Your task to perform on an android device: turn on priority inbox in the gmail app Image 0: 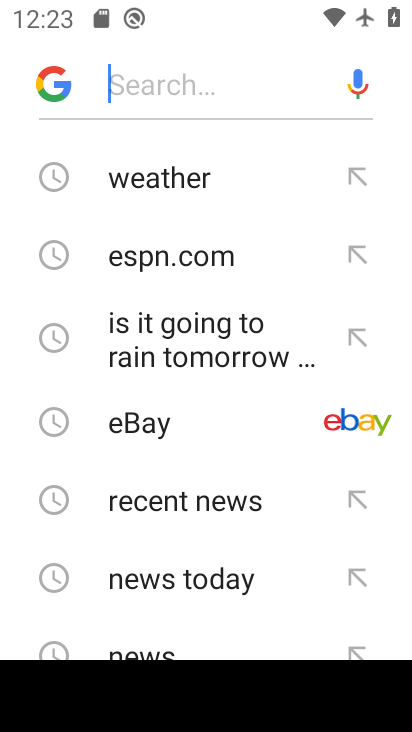
Step 0: press home button
Your task to perform on an android device: turn on priority inbox in the gmail app Image 1: 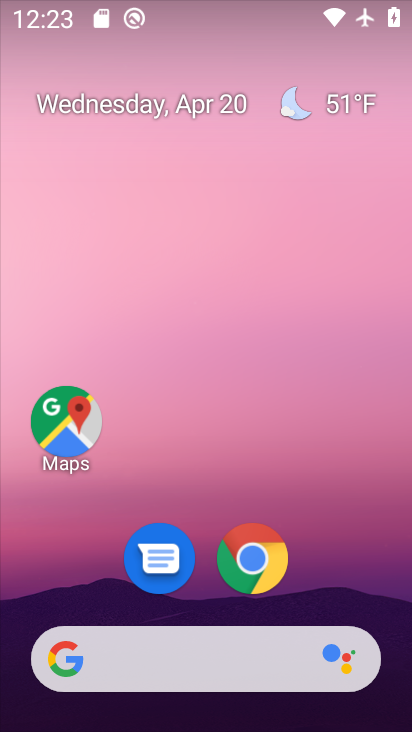
Step 1: drag from (381, 620) to (341, 178)
Your task to perform on an android device: turn on priority inbox in the gmail app Image 2: 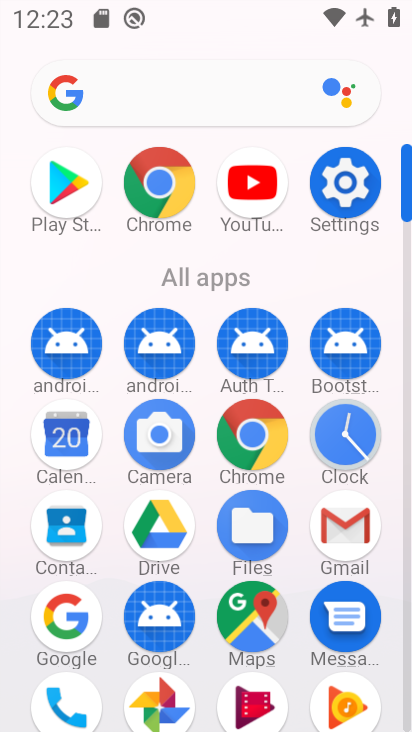
Step 2: click (407, 692)
Your task to perform on an android device: turn on priority inbox in the gmail app Image 3: 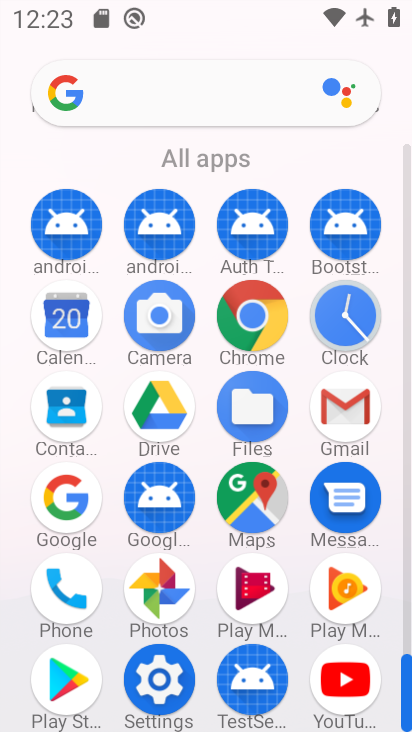
Step 3: click (342, 407)
Your task to perform on an android device: turn on priority inbox in the gmail app Image 4: 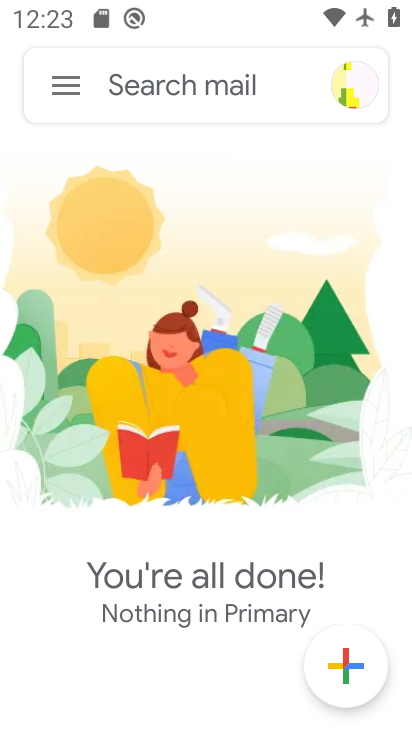
Step 4: click (64, 84)
Your task to perform on an android device: turn on priority inbox in the gmail app Image 5: 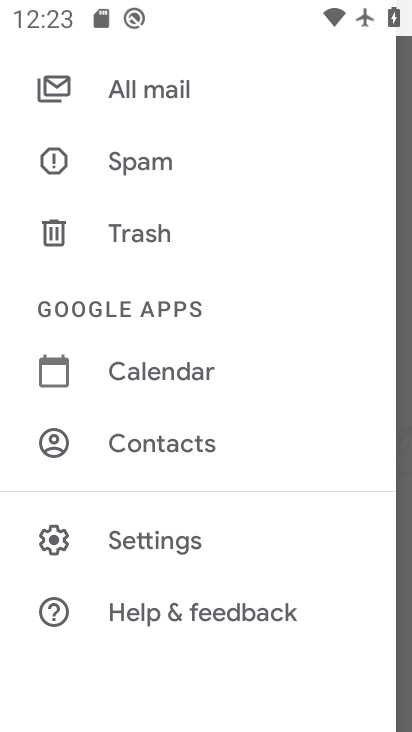
Step 5: click (144, 537)
Your task to perform on an android device: turn on priority inbox in the gmail app Image 6: 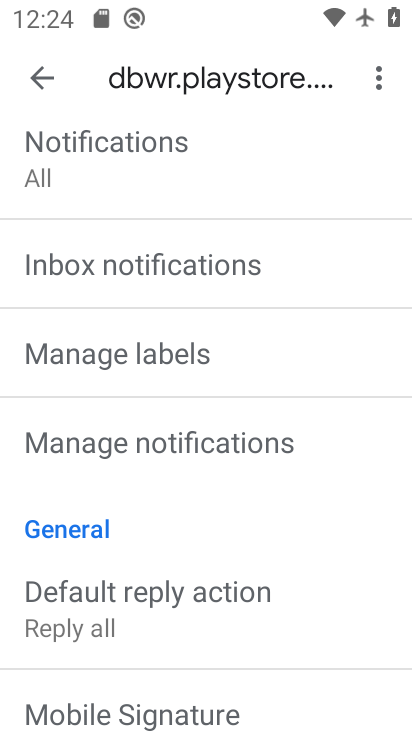
Step 6: drag from (220, 184) to (258, 460)
Your task to perform on an android device: turn on priority inbox in the gmail app Image 7: 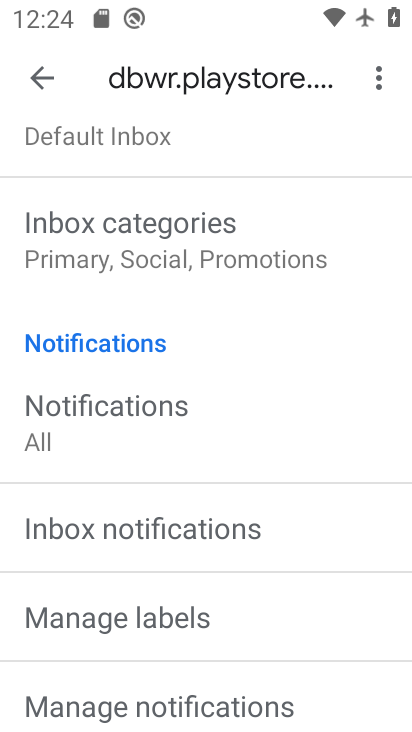
Step 7: drag from (274, 280) to (237, 487)
Your task to perform on an android device: turn on priority inbox in the gmail app Image 8: 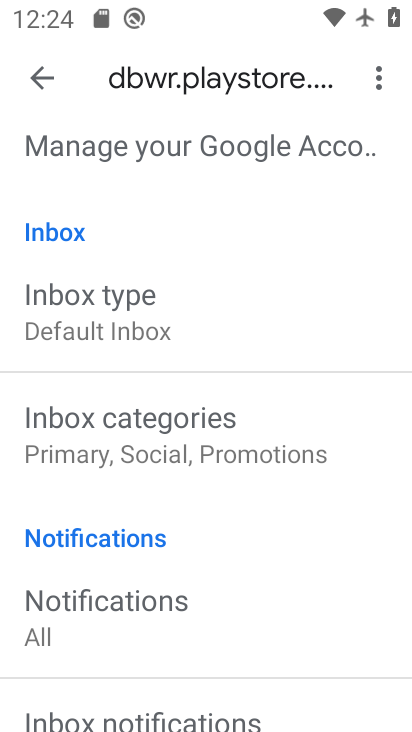
Step 8: click (58, 313)
Your task to perform on an android device: turn on priority inbox in the gmail app Image 9: 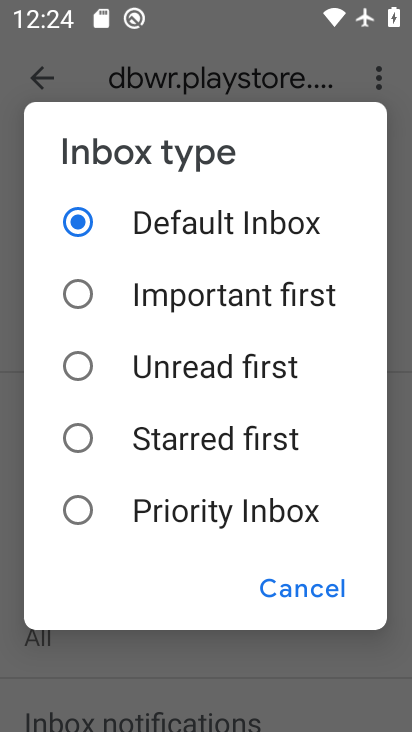
Step 9: click (85, 512)
Your task to perform on an android device: turn on priority inbox in the gmail app Image 10: 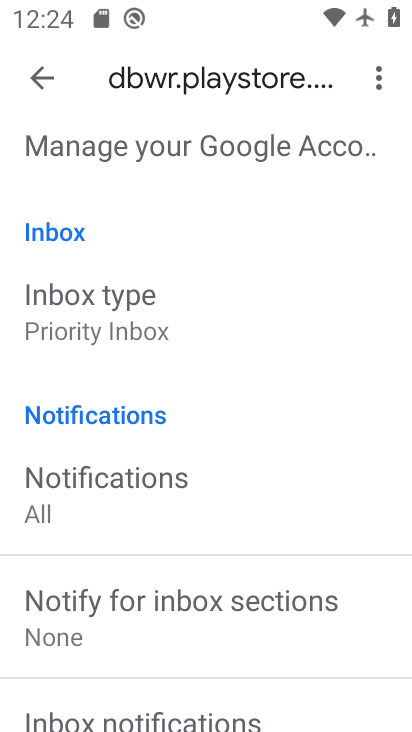
Step 10: task complete